Your task to perform on an android device: check out phone information Image 0: 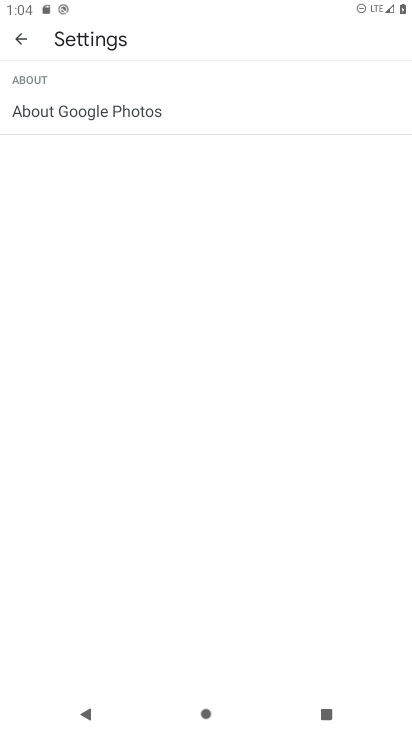
Step 0: press home button
Your task to perform on an android device: check out phone information Image 1: 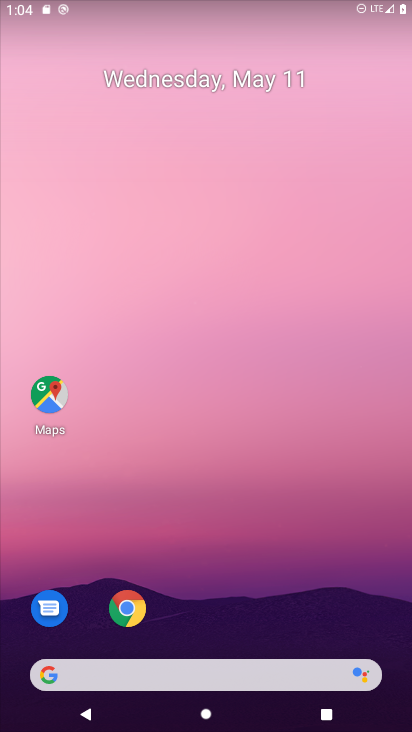
Step 1: drag from (279, 563) to (218, 11)
Your task to perform on an android device: check out phone information Image 2: 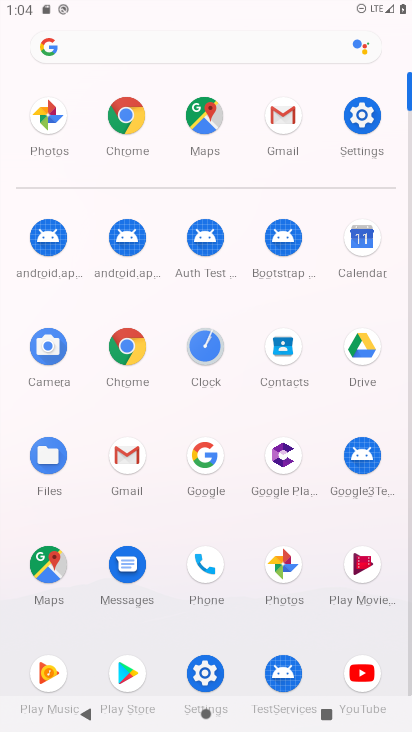
Step 2: click (200, 562)
Your task to perform on an android device: check out phone information Image 3: 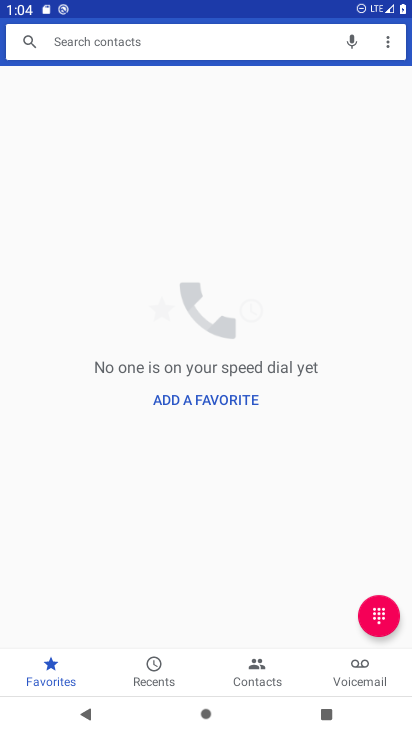
Step 3: click (380, 35)
Your task to perform on an android device: check out phone information Image 4: 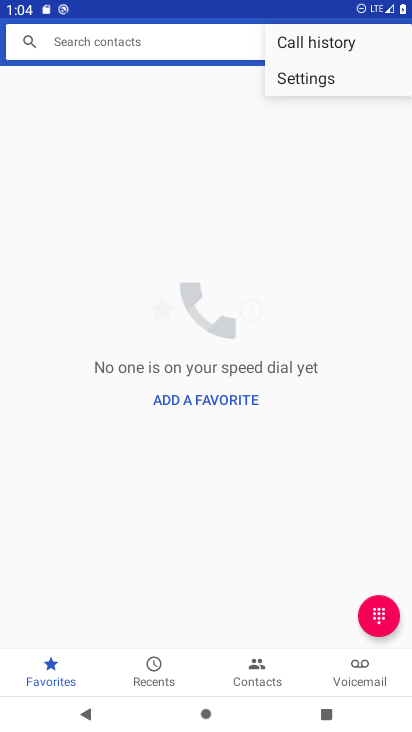
Step 4: click (353, 73)
Your task to perform on an android device: check out phone information Image 5: 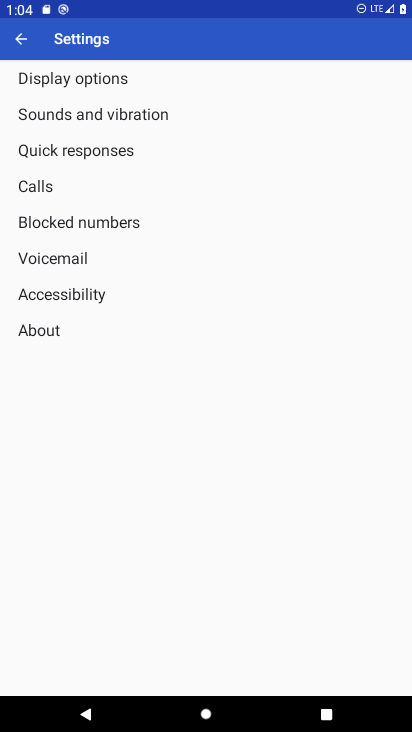
Step 5: click (46, 333)
Your task to perform on an android device: check out phone information Image 6: 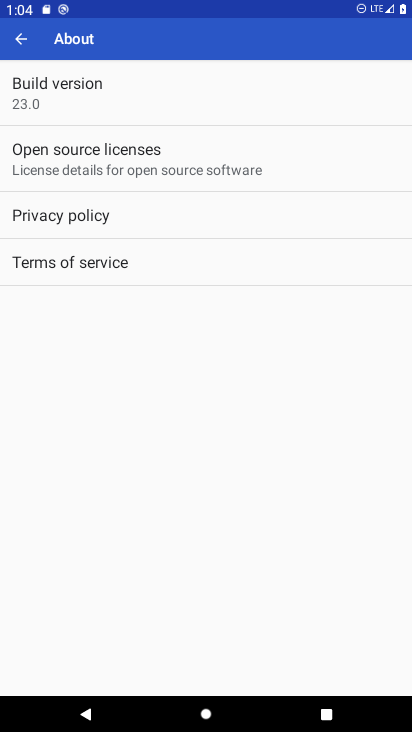
Step 6: task complete